Your task to perform on an android device: Open Google Chrome and click the shortcut for Amazon.com Image 0: 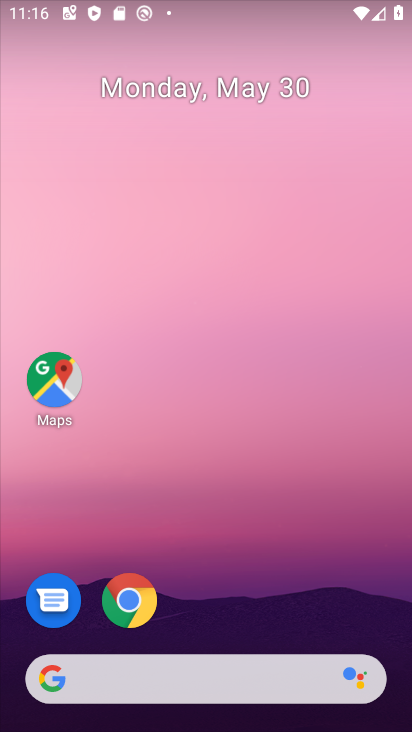
Step 0: click (130, 597)
Your task to perform on an android device: Open Google Chrome and click the shortcut for Amazon.com Image 1: 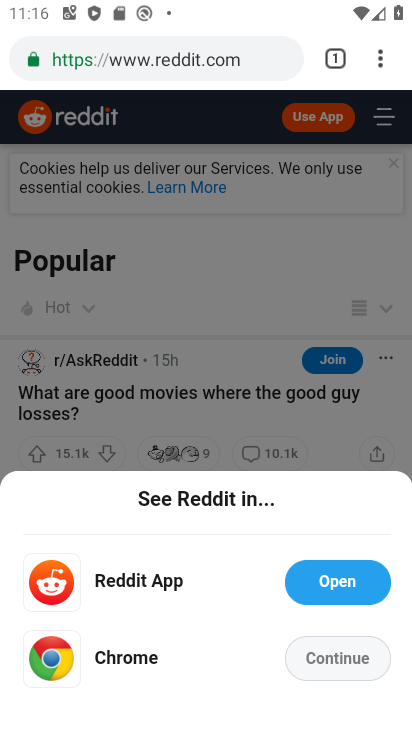
Step 1: click (379, 64)
Your task to perform on an android device: Open Google Chrome and click the shortcut for Amazon.com Image 2: 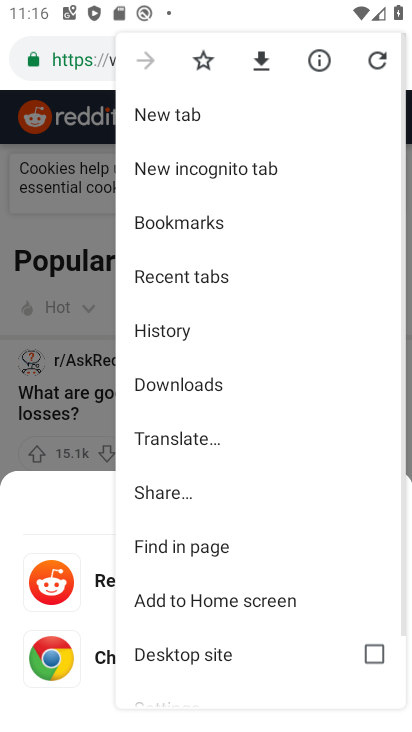
Step 2: click (197, 113)
Your task to perform on an android device: Open Google Chrome and click the shortcut for Amazon.com Image 3: 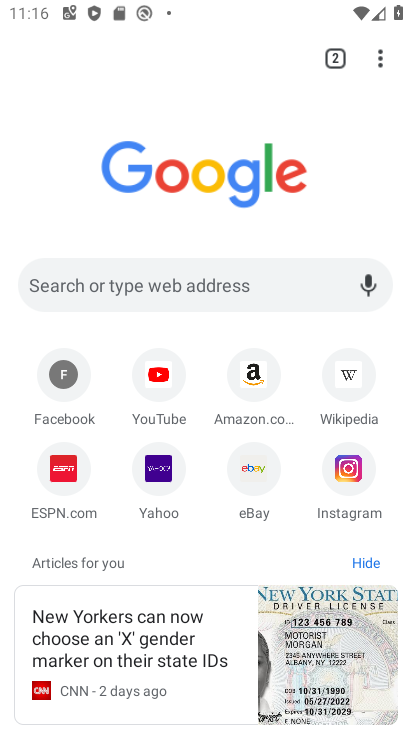
Step 3: click (253, 380)
Your task to perform on an android device: Open Google Chrome and click the shortcut for Amazon.com Image 4: 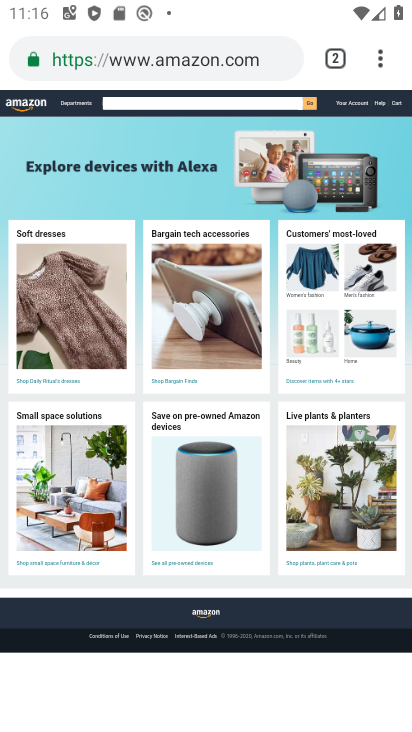
Step 4: task complete